Your task to perform on an android device: Search for seafood restaurants on Google Maps Image 0: 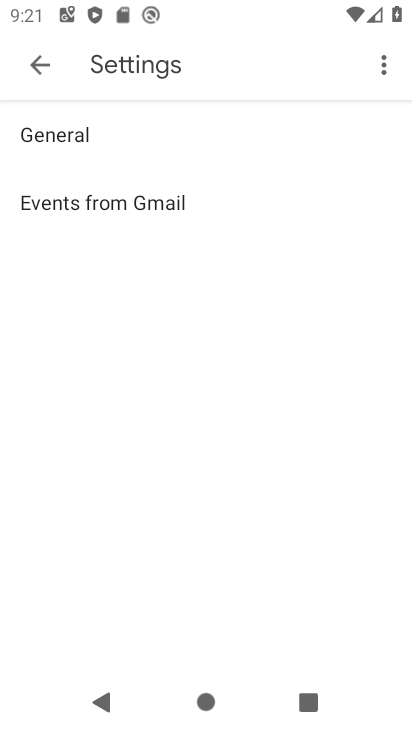
Step 0: press home button
Your task to perform on an android device: Search for seafood restaurants on Google Maps Image 1: 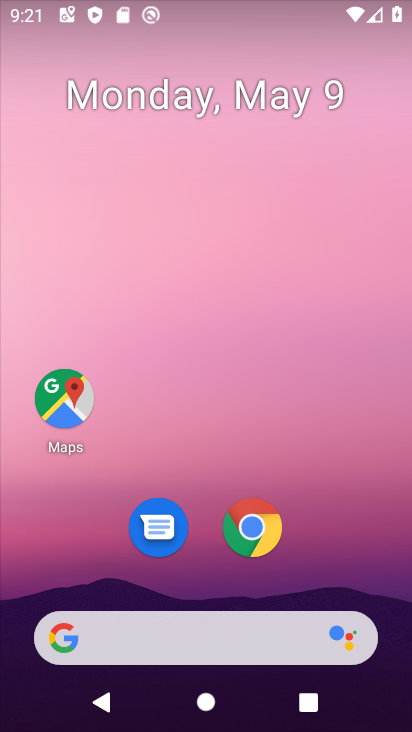
Step 1: drag from (193, 612) to (195, 282)
Your task to perform on an android device: Search for seafood restaurants on Google Maps Image 2: 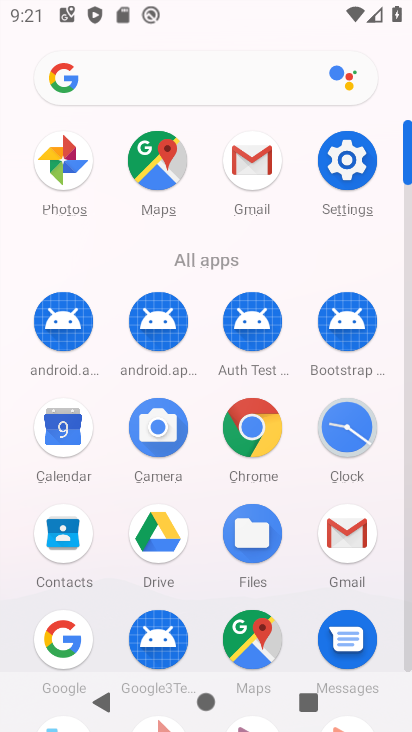
Step 2: click (237, 635)
Your task to perform on an android device: Search for seafood restaurants on Google Maps Image 3: 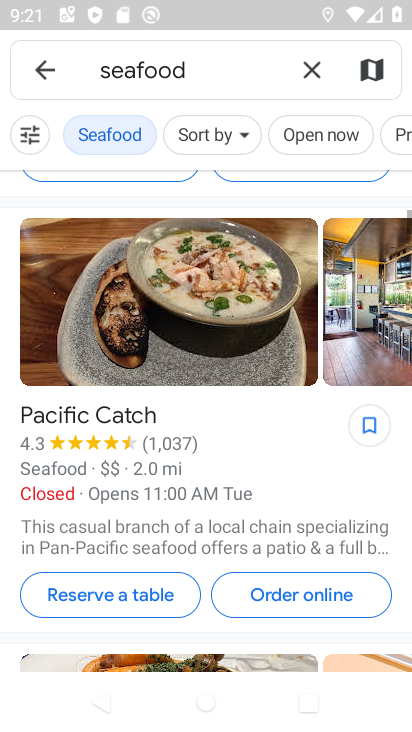
Step 3: task complete